Your task to perform on an android device: turn off data saver in the chrome app Image 0: 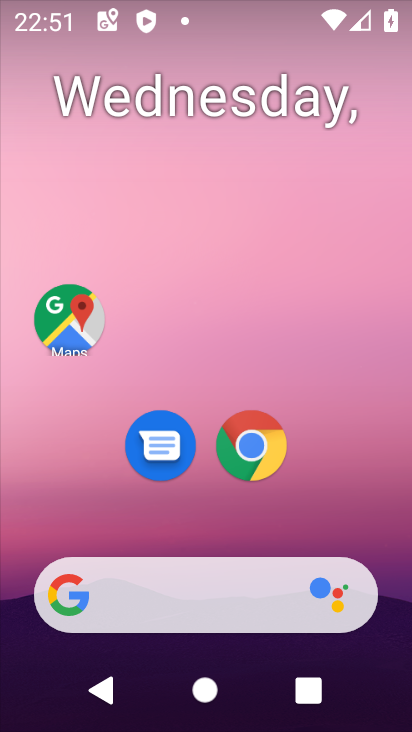
Step 0: drag from (274, 399) to (255, 428)
Your task to perform on an android device: turn off data saver in the chrome app Image 1: 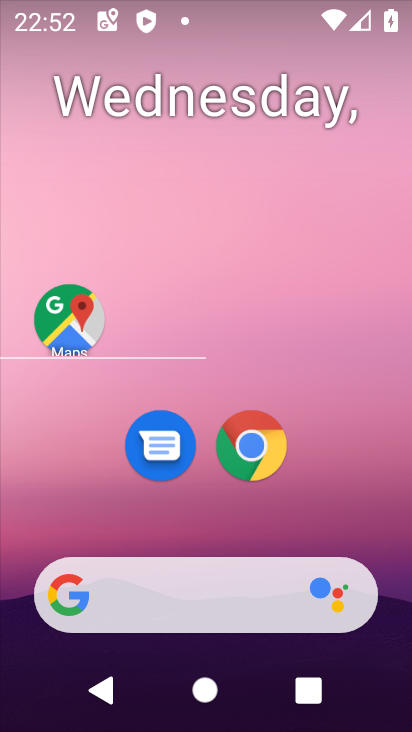
Step 1: click (250, 437)
Your task to perform on an android device: turn off data saver in the chrome app Image 2: 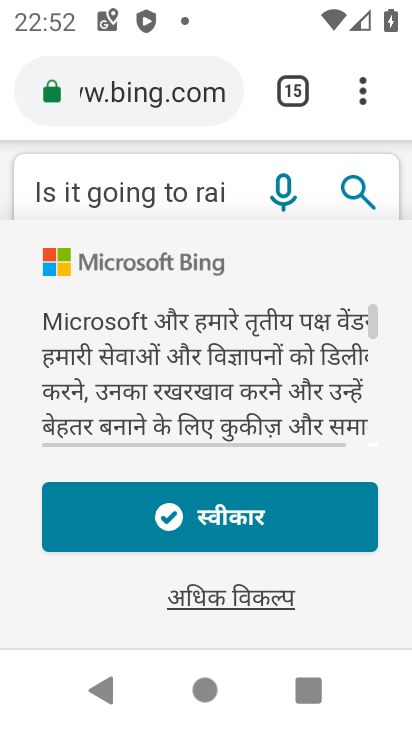
Step 2: click (356, 90)
Your task to perform on an android device: turn off data saver in the chrome app Image 3: 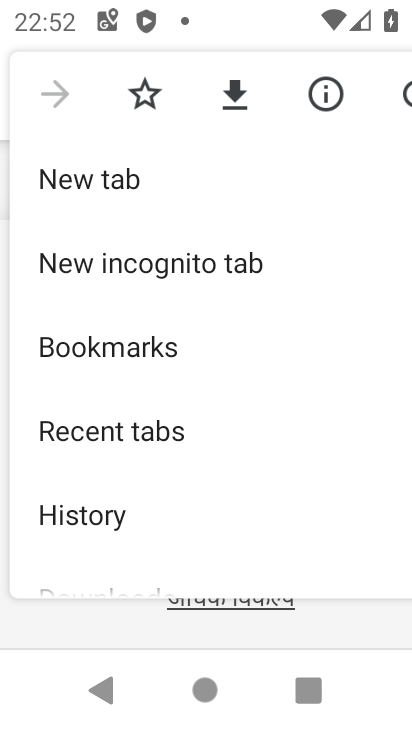
Step 3: click (171, 524)
Your task to perform on an android device: turn off data saver in the chrome app Image 4: 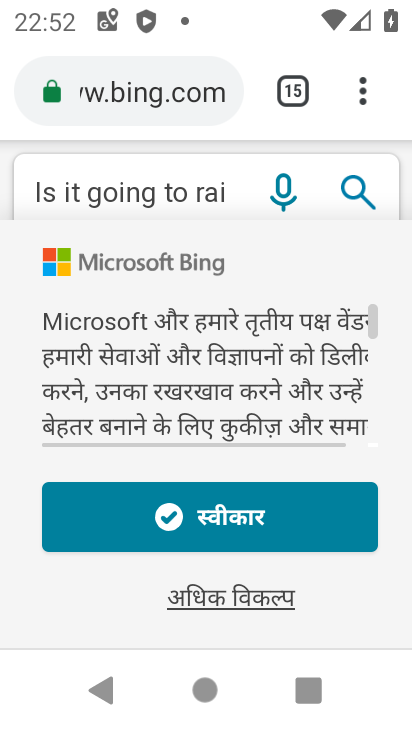
Step 4: drag from (187, 437) to (213, 236)
Your task to perform on an android device: turn off data saver in the chrome app Image 5: 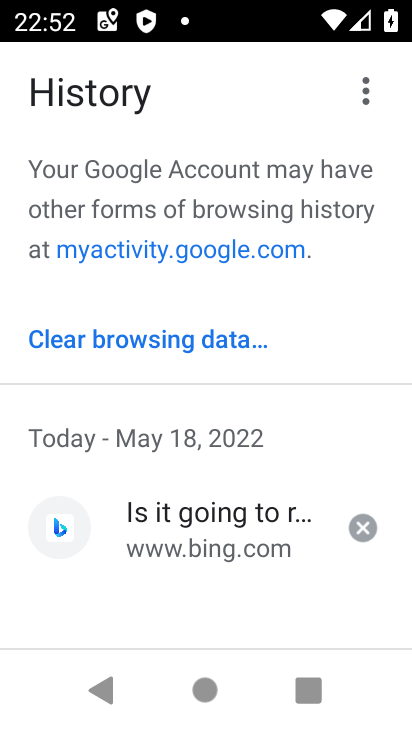
Step 5: press back button
Your task to perform on an android device: turn off data saver in the chrome app Image 6: 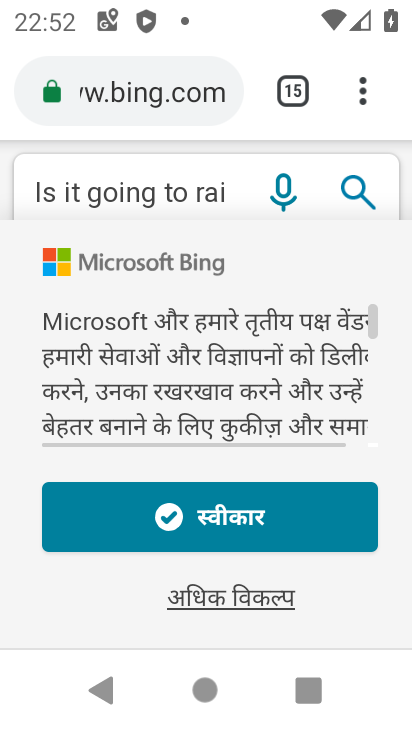
Step 6: click (355, 99)
Your task to perform on an android device: turn off data saver in the chrome app Image 7: 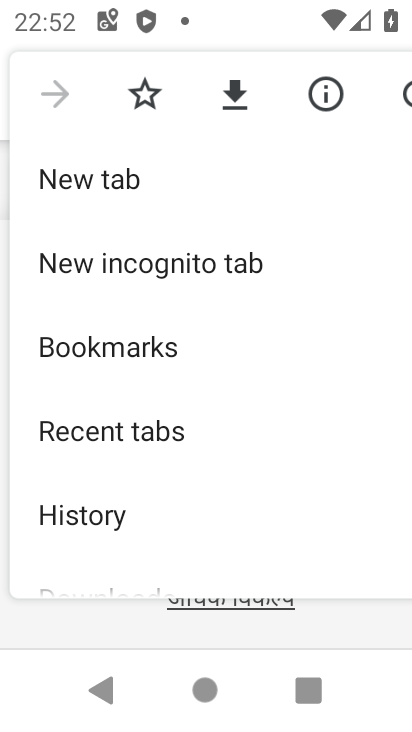
Step 7: drag from (257, 546) to (299, 227)
Your task to perform on an android device: turn off data saver in the chrome app Image 8: 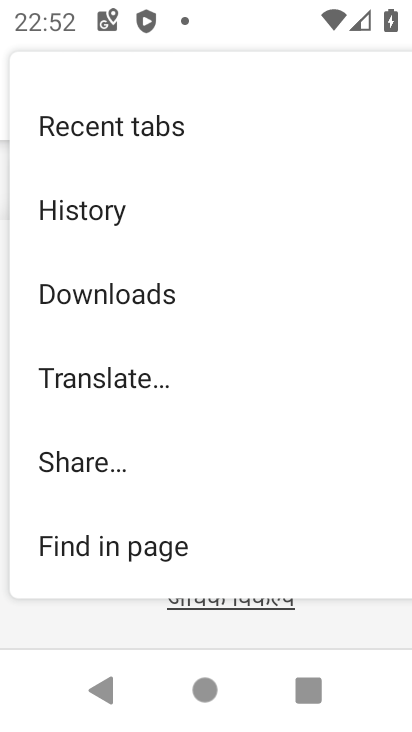
Step 8: drag from (134, 516) to (264, 209)
Your task to perform on an android device: turn off data saver in the chrome app Image 9: 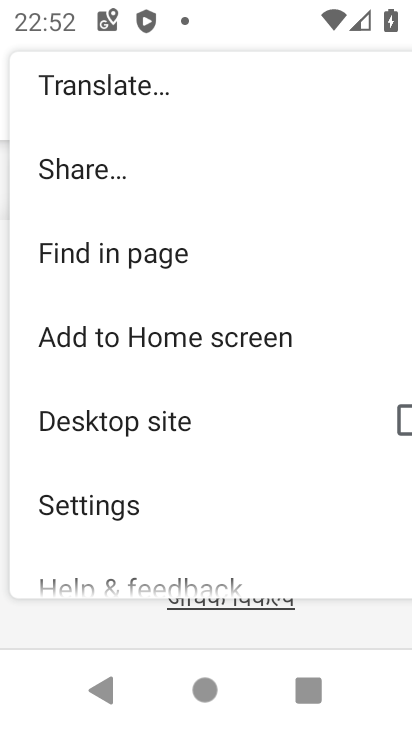
Step 9: click (119, 491)
Your task to perform on an android device: turn off data saver in the chrome app Image 10: 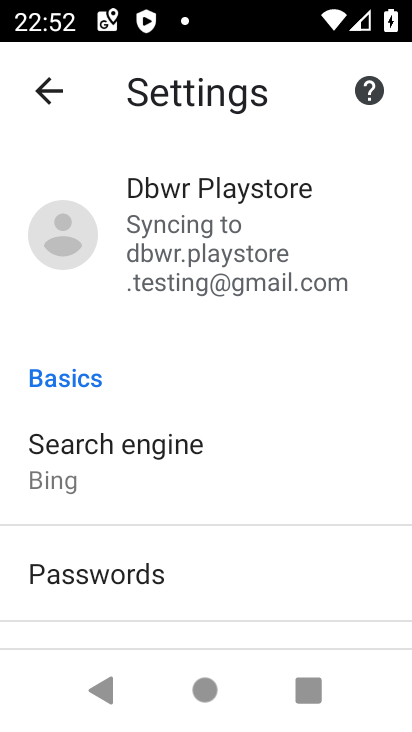
Step 10: drag from (207, 593) to (342, 126)
Your task to perform on an android device: turn off data saver in the chrome app Image 11: 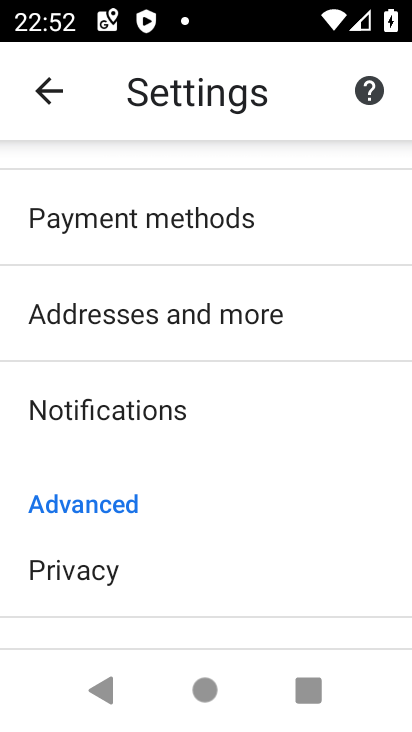
Step 11: drag from (233, 515) to (297, 230)
Your task to perform on an android device: turn off data saver in the chrome app Image 12: 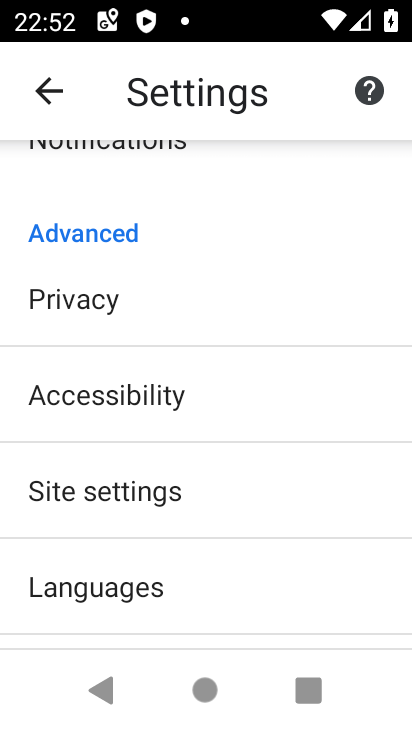
Step 12: drag from (228, 581) to (266, 316)
Your task to perform on an android device: turn off data saver in the chrome app Image 13: 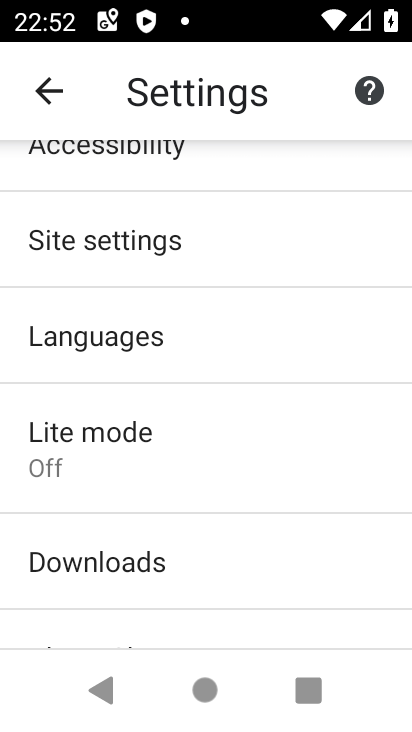
Step 13: click (109, 440)
Your task to perform on an android device: turn off data saver in the chrome app Image 14: 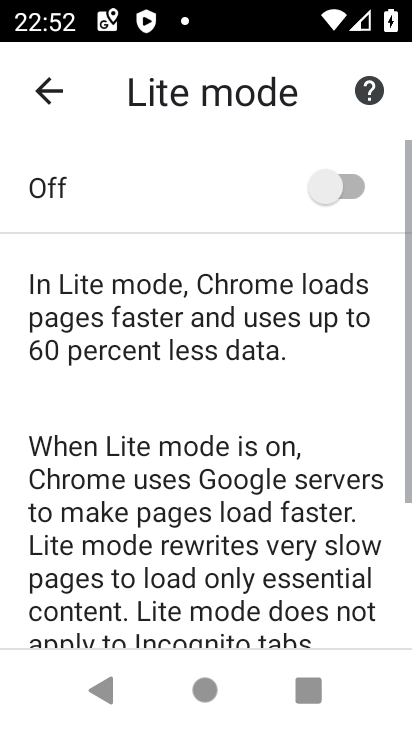
Step 14: task complete